Your task to perform on an android device: Open wifi settings Image 0: 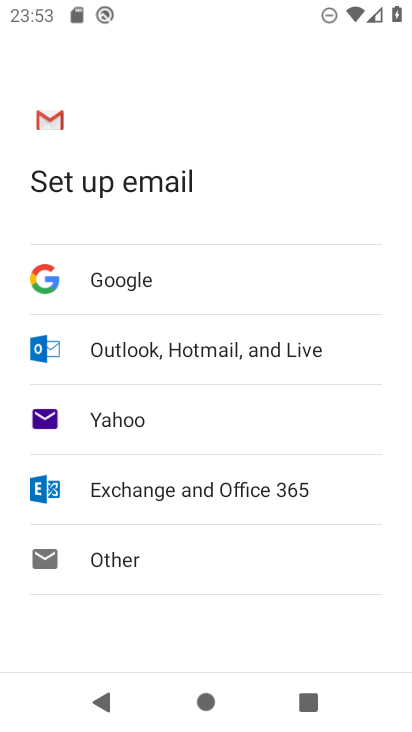
Step 0: press home button
Your task to perform on an android device: Open wifi settings Image 1: 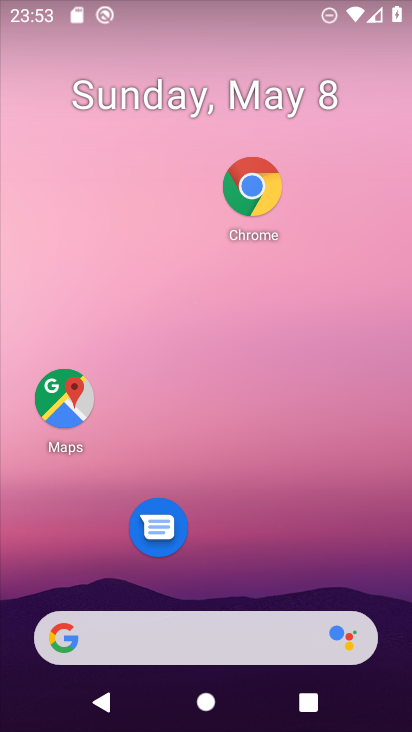
Step 1: drag from (303, 574) to (346, 192)
Your task to perform on an android device: Open wifi settings Image 2: 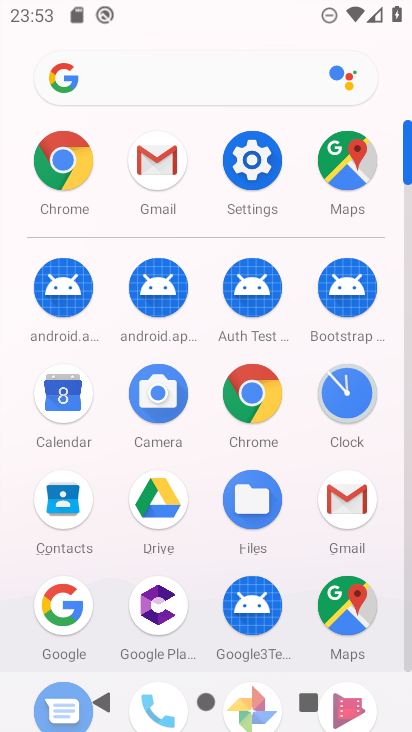
Step 2: click (241, 158)
Your task to perform on an android device: Open wifi settings Image 3: 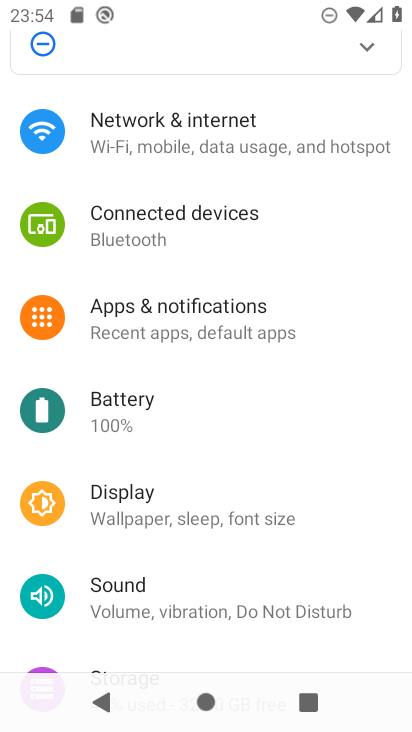
Step 3: click (213, 126)
Your task to perform on an android device: Open wifi settings Image 4: 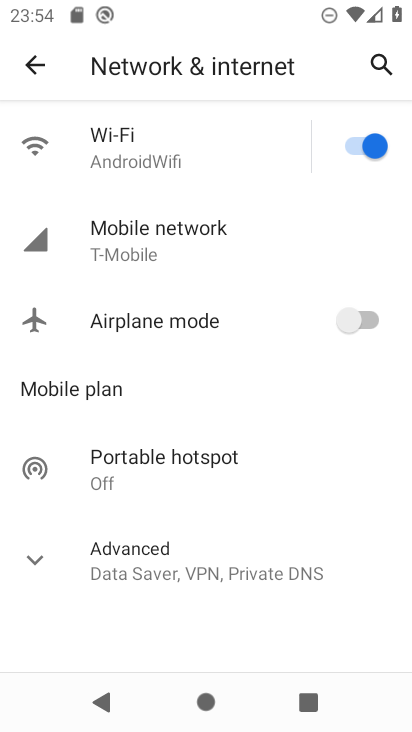
Step 4: click (237, 143)
Your task to perform on an android device: Open wifi settings Image 5: 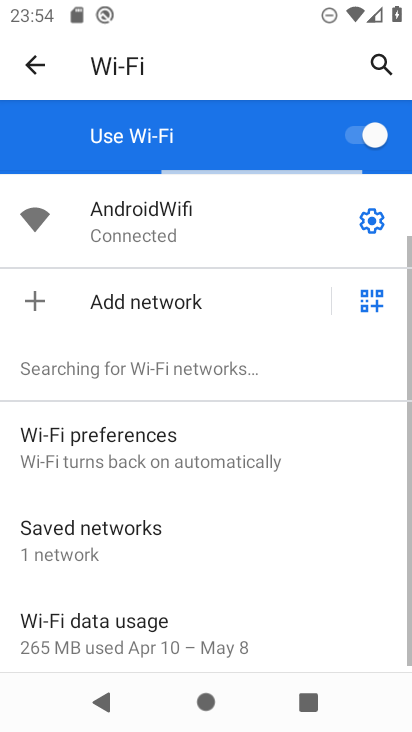
Step 5: task complete